Your task to perform on an android device: change the clock display to analog Image 0: 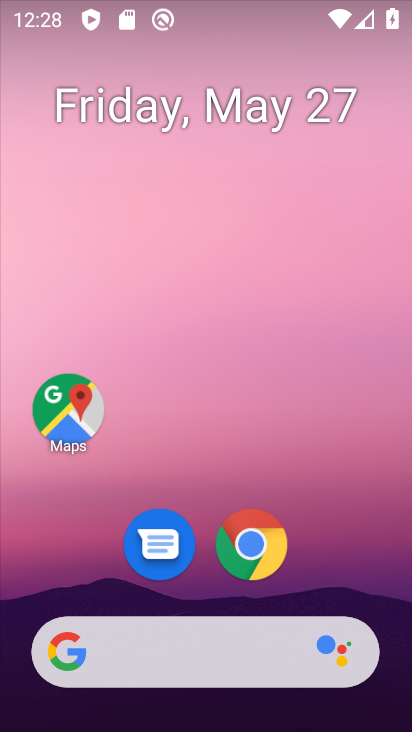
Step 0: drag from (334, 522) to (219, 126)
Your task to perform on an android device: change the clock display to analog Image 1: 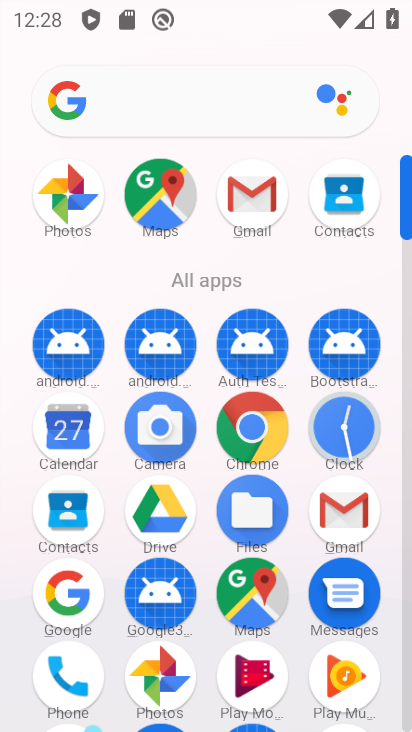
Step 1: click (337, 428)
Your task to perform on an android device: change the clock display to analog Image 2: 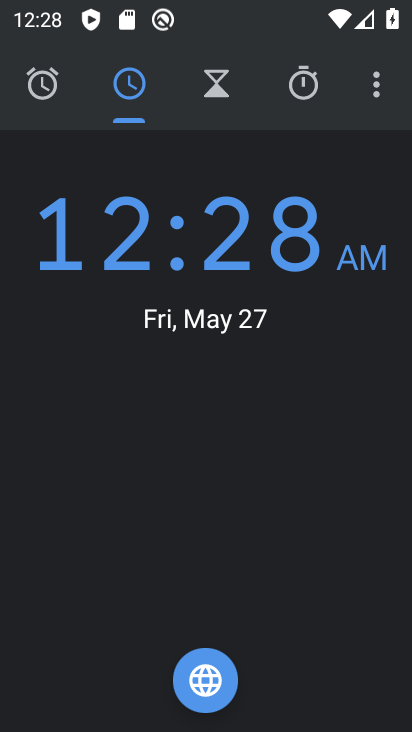
Step 2: click (377, 82)
Your task to perform on an android device: change the clock display to analog Image 3: 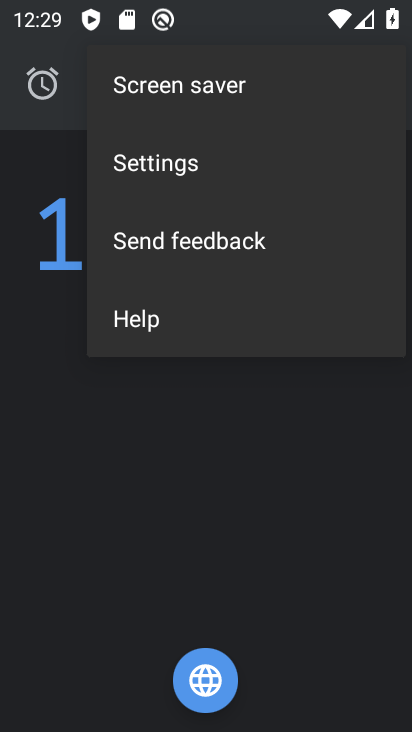
Step 3: click (172, 160)
Your task to perform on an android device: change the clock display to analog Image 4: 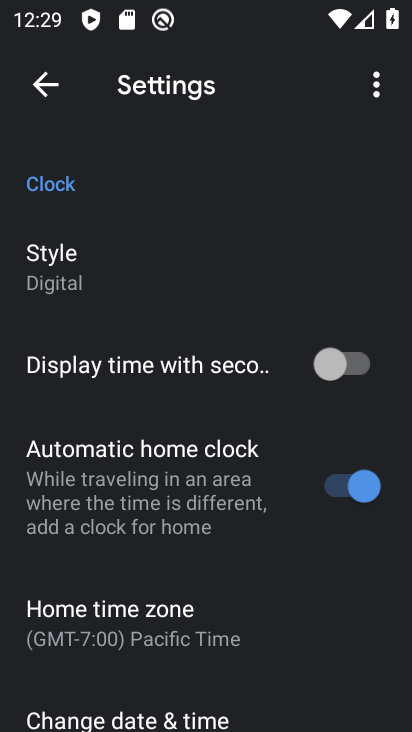
Step 4: click (55, 262)
Your task to perform on an android device: change the clock display to analog Image 5: 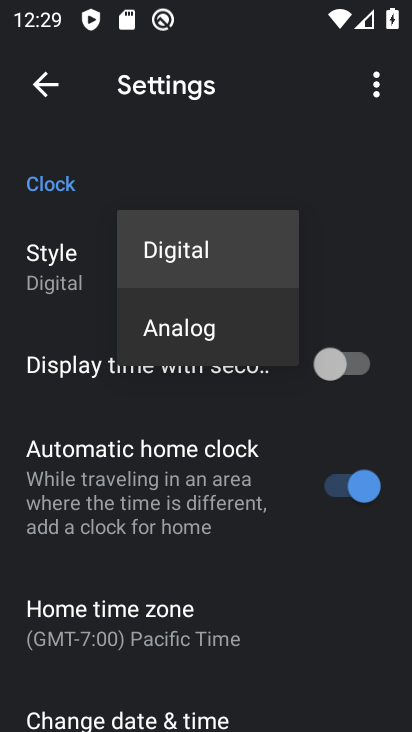
Step 5: click (146, 318)
Your task to perform on an android device: change the clock display to analog Image 6: 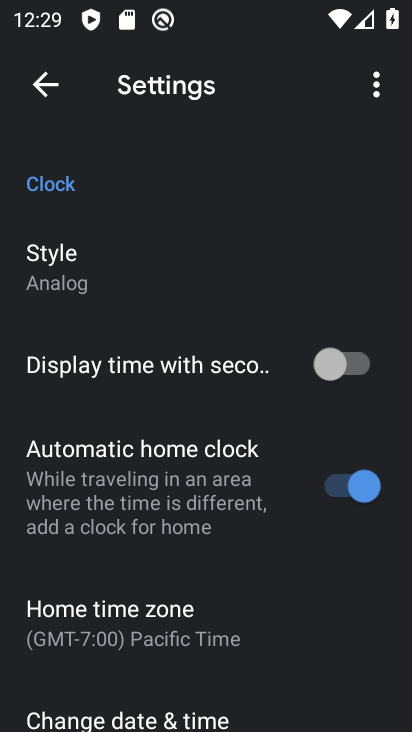
Step 6: task complete